Your task to perform on an android device: install app "AliExpress" Image 0: 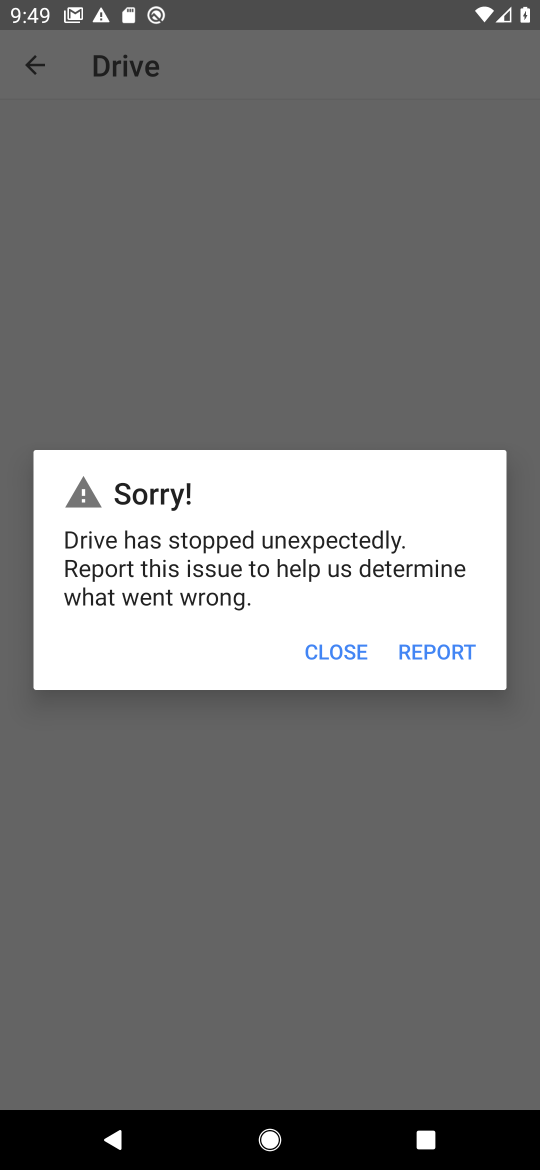
Step 0: press back button
Your task to perform on an android device: install app "AliExpress" Image 1: 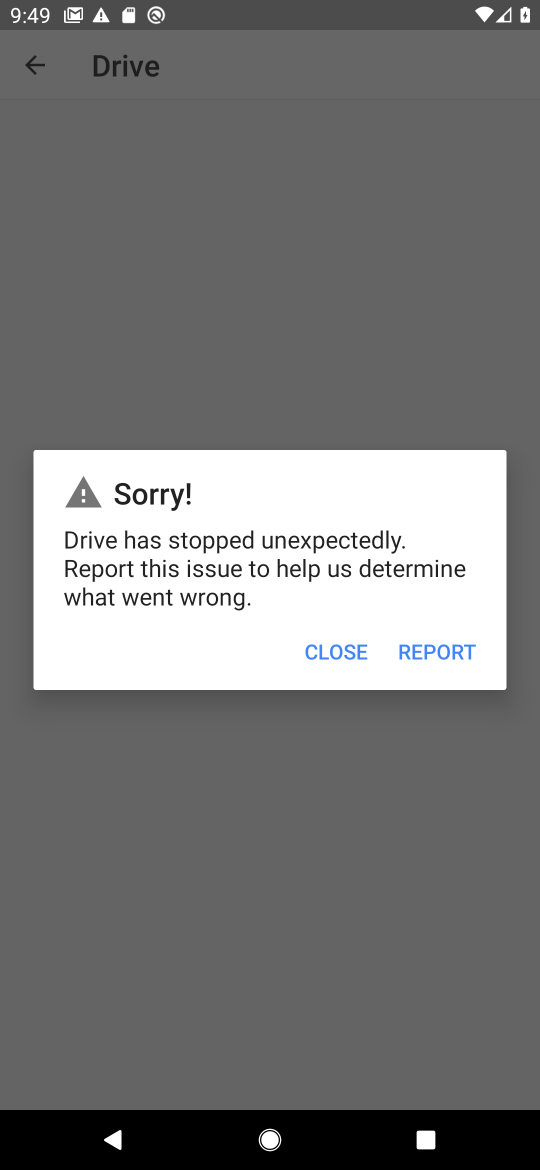
Step 1: press back button
Your task to perform on an android device: install app "AliExpress" Image 2: 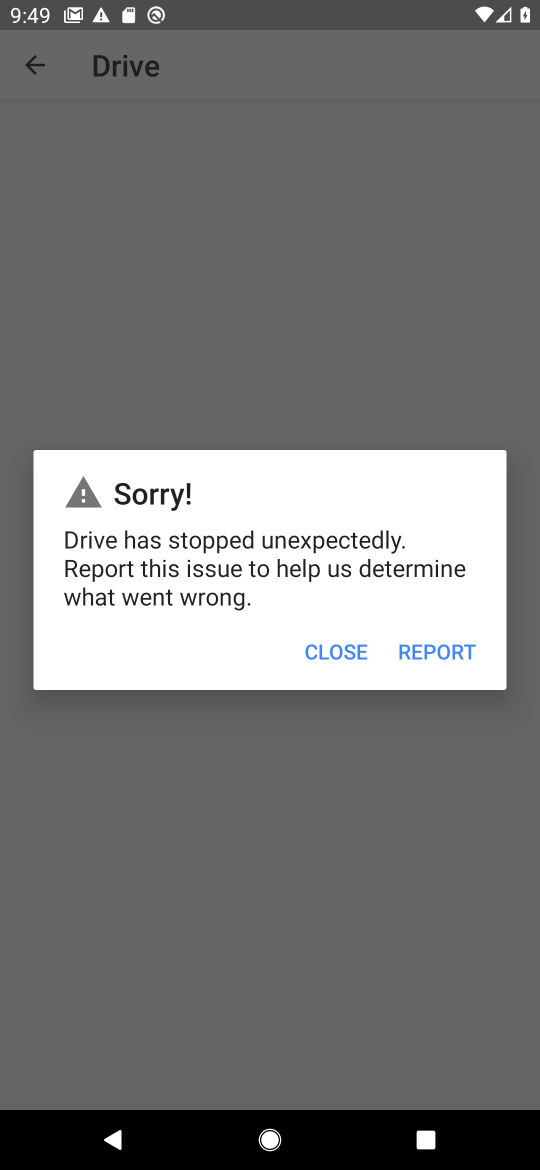
Step 2: press home button
Your task to perform on an android device: install app "AliExpress" Image 3: 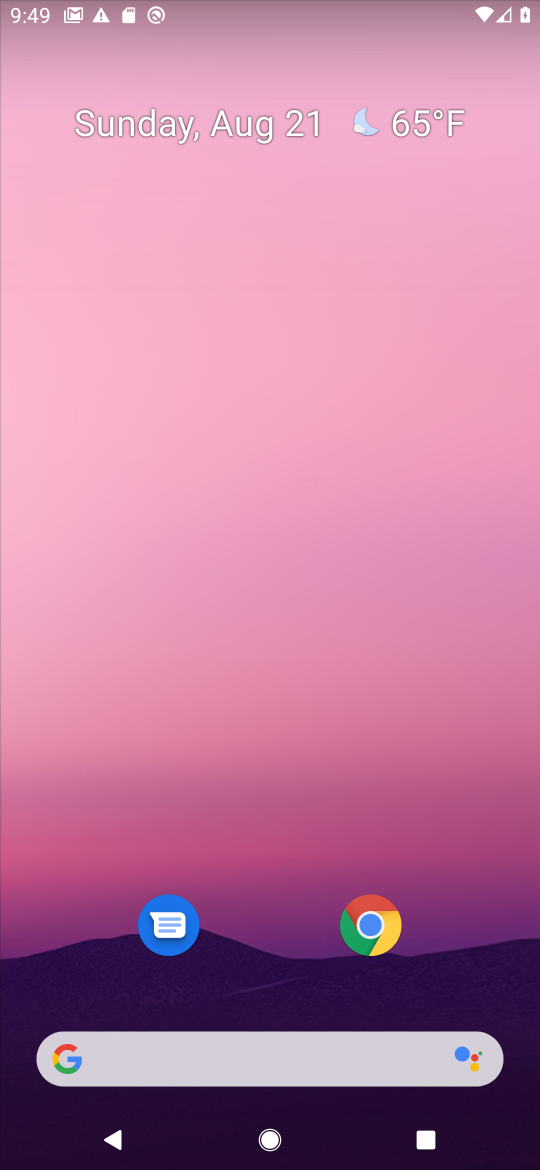
Step 3: drag from (249, 1000) to (327, 126)
Your task to perform on an android device: install app "AliExpress" Image 4: 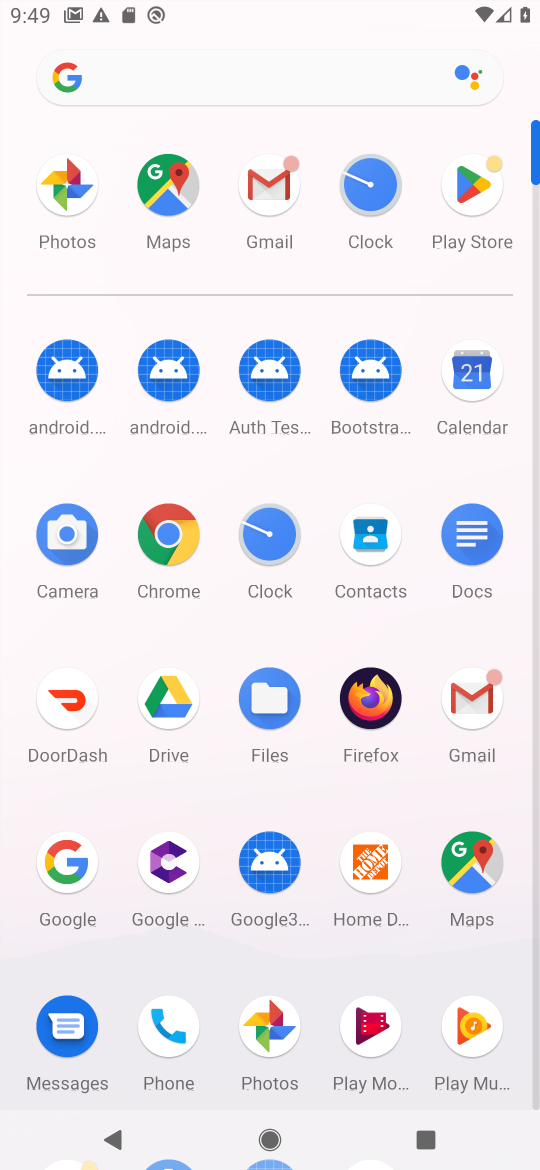
Step 4: click (481, 192)
Your task to perform on an android device: install app "AliExpress" Image 5: 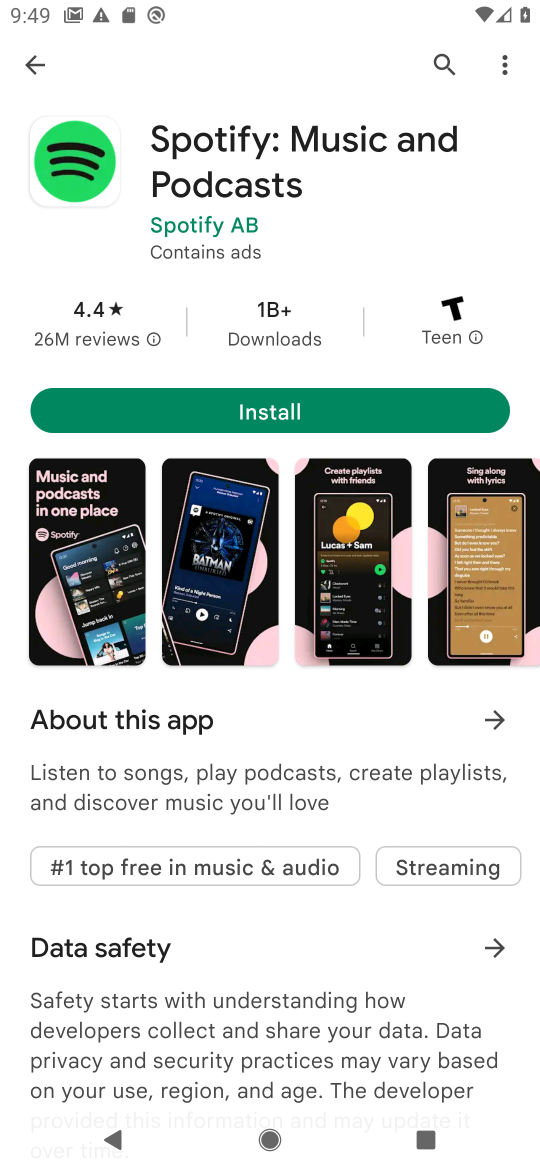
Step 5: click (450, 48)
Your task to perform on an android device: install app "AliExpress" Image 6: 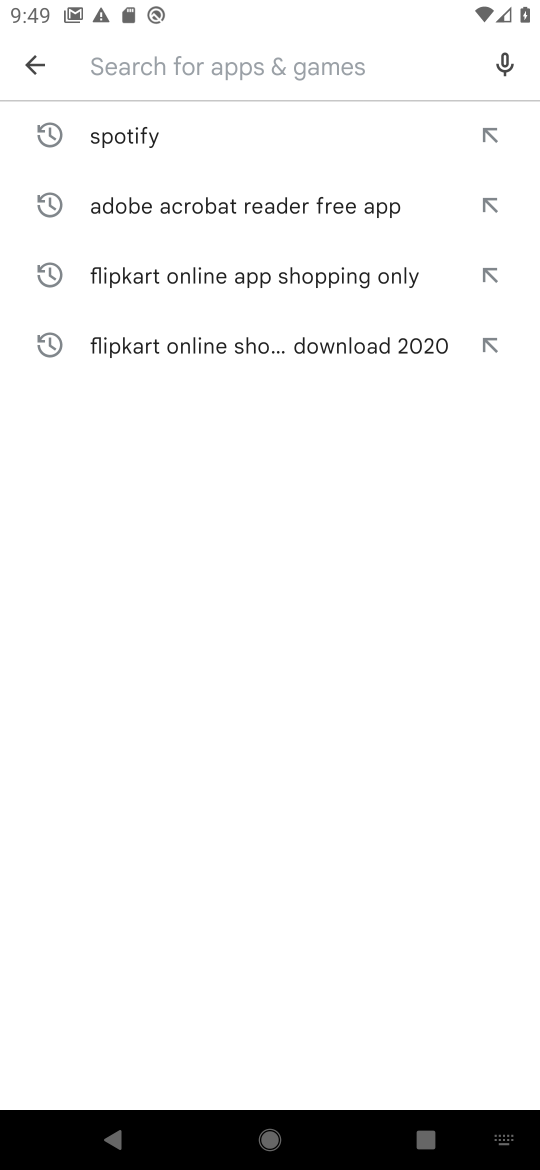
Step 6: click (254, 80)
Your task to perform on an android device: install app "AliExpress" Image 7: 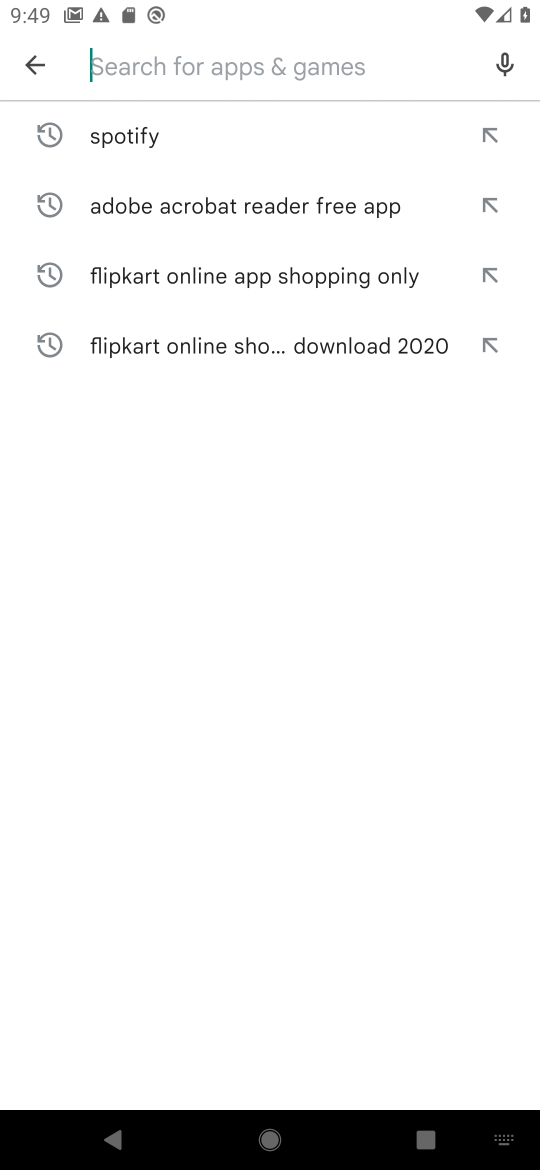
Step 7: click (207, 66)
Your task to perform on an android device: install app "AliExpress" Image 8: 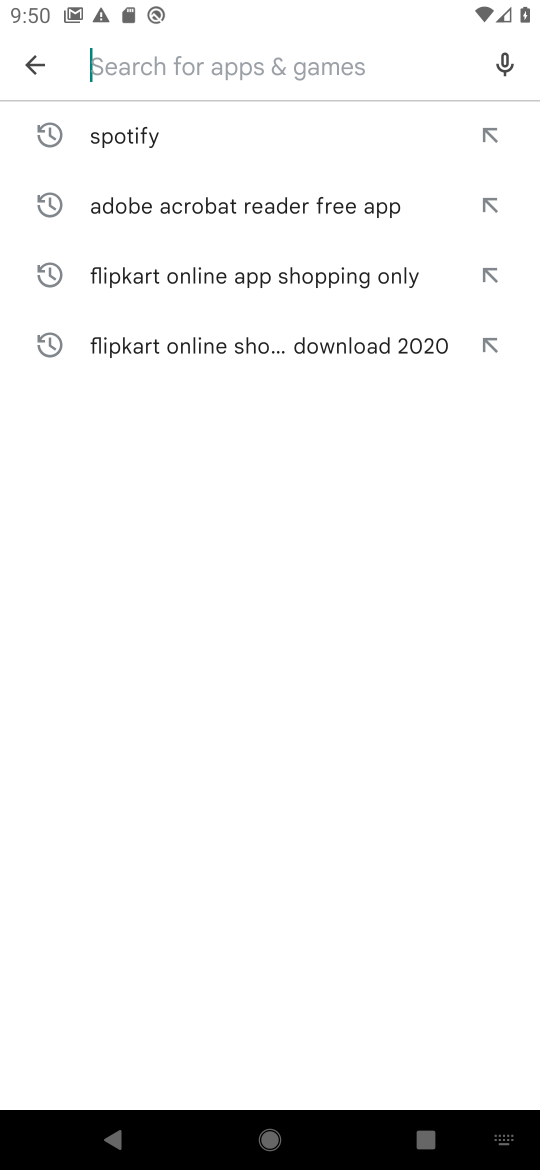
Step 8: type "aliexpress"
Your task to perform on an android device: install app "AliExpress" Image 9: 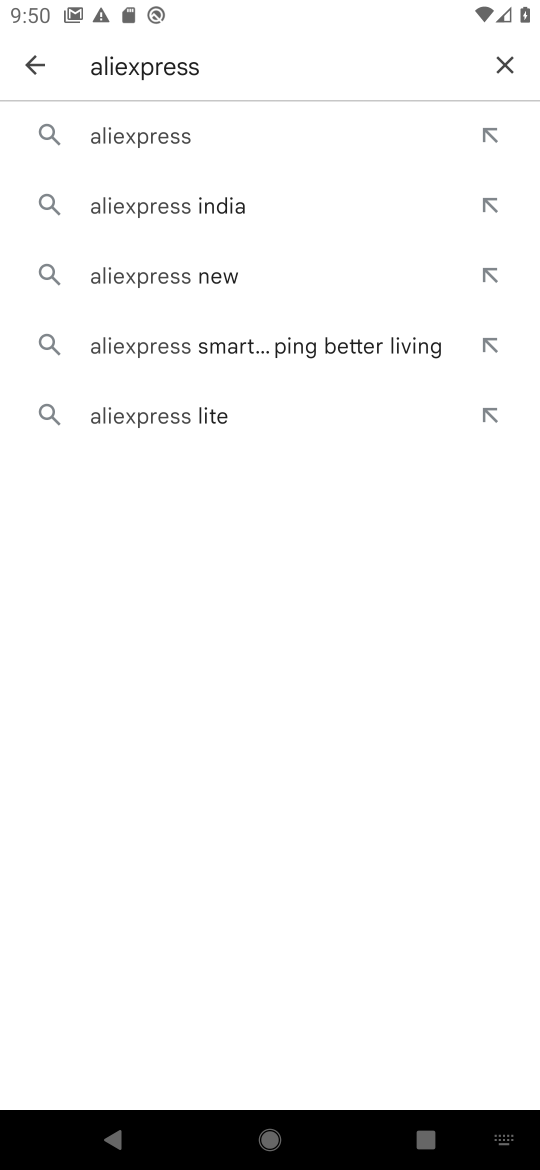
Step 9: click (172, 130)
Your task to perform on an android device: install app "AliExpress" Image 10: 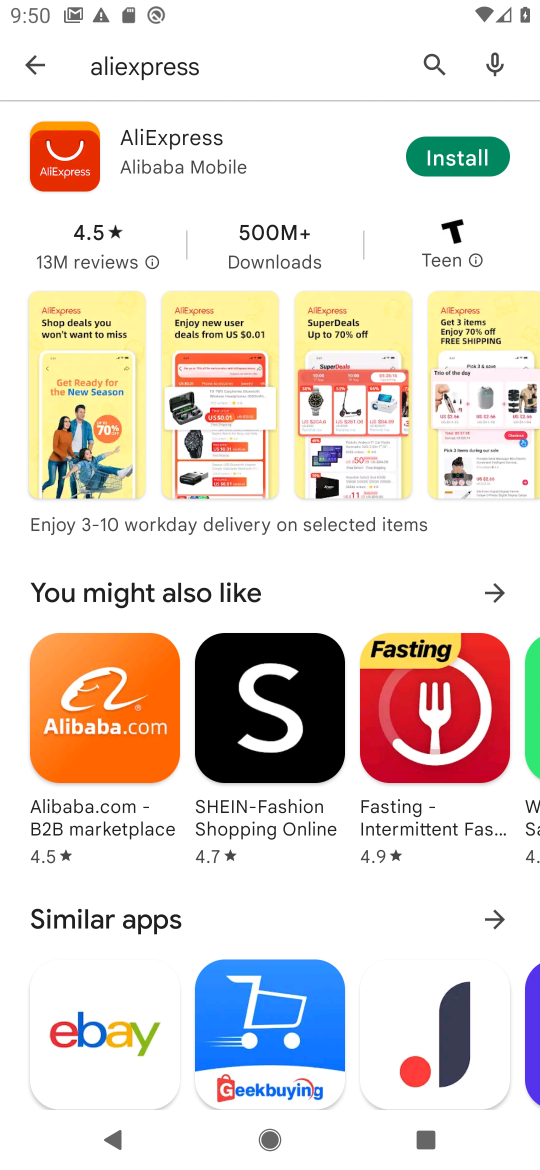
Step 10: click (461, 153)
Your task to perform on an android device: install app "AliExpress" Image 11: 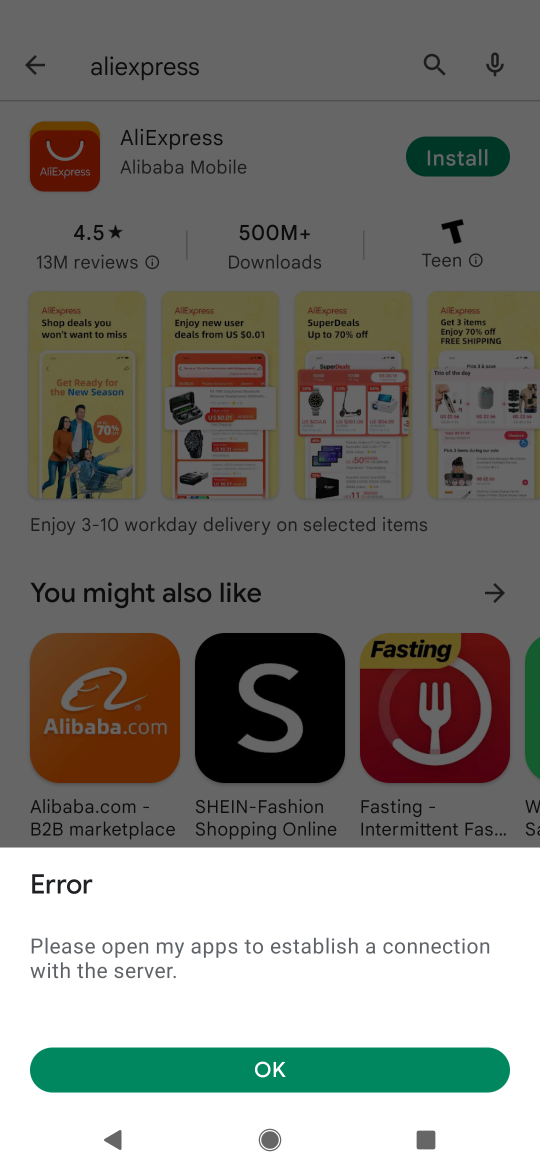
Step 11: click (285, 1080)
Your task to perform on an android device: install app "AliExpress" Image 12: 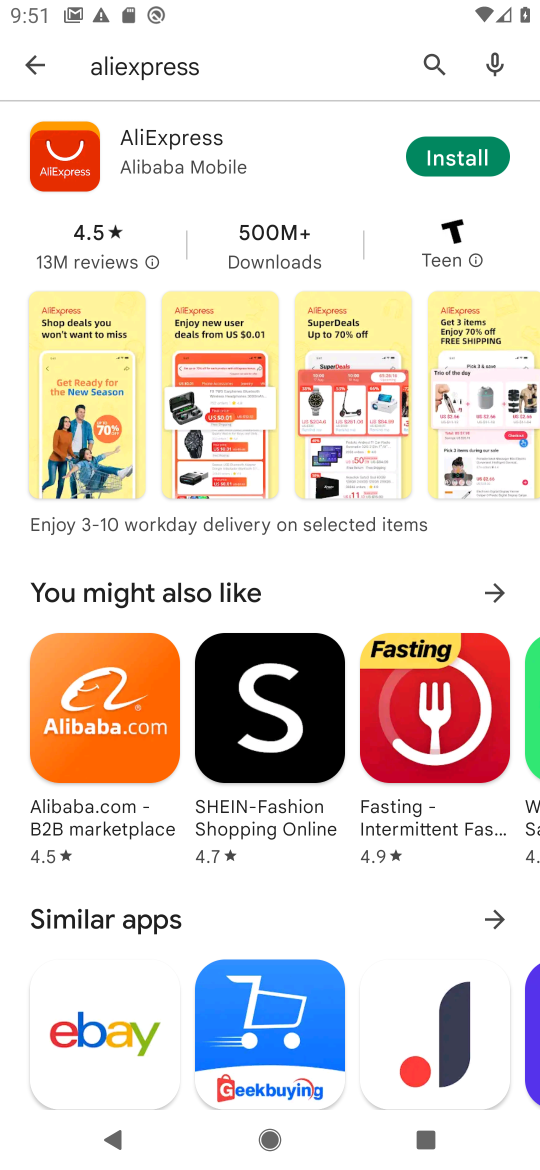
Step 12: click (466, 158)
Your task to perform on an android device: install app "AliExpress" Image 13: 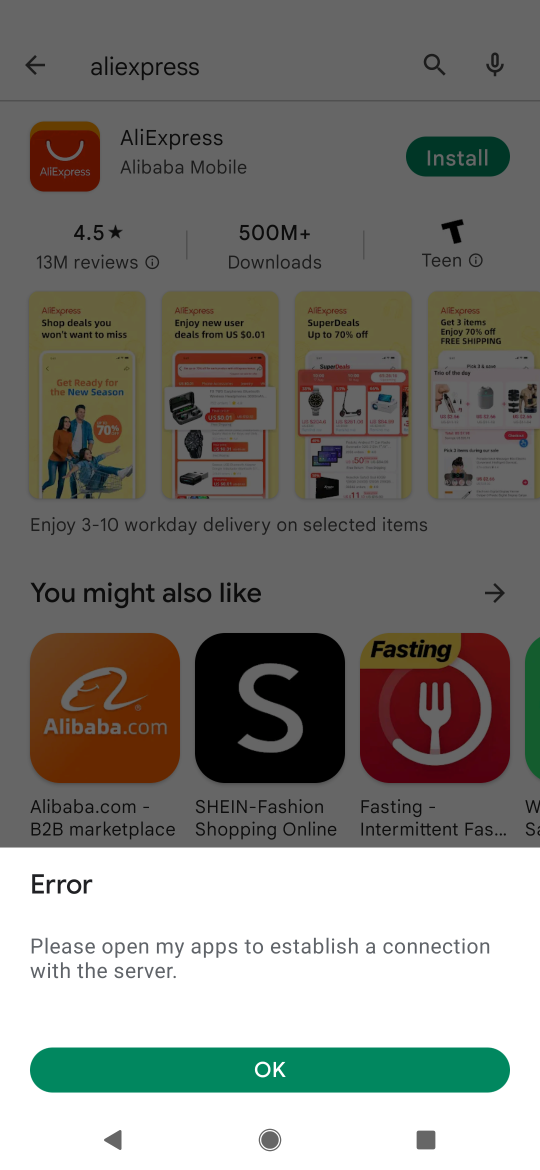
Step 13: task complete